Your task to perform on an android device: Go to privacy settings Image 0: 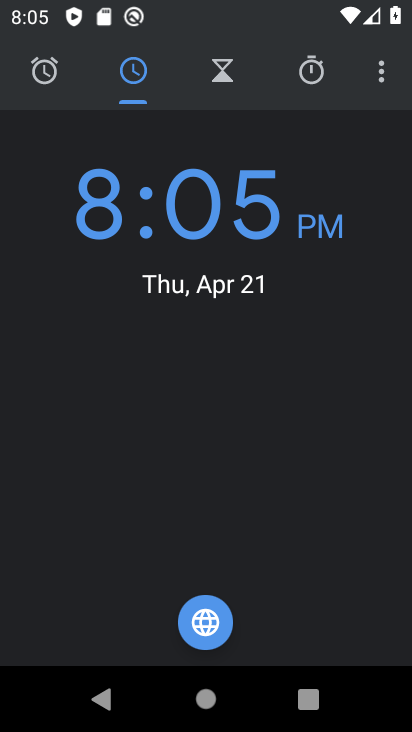
Step 0: press home button
Your task to perform on an android device: Go to privacy settings Image 1: 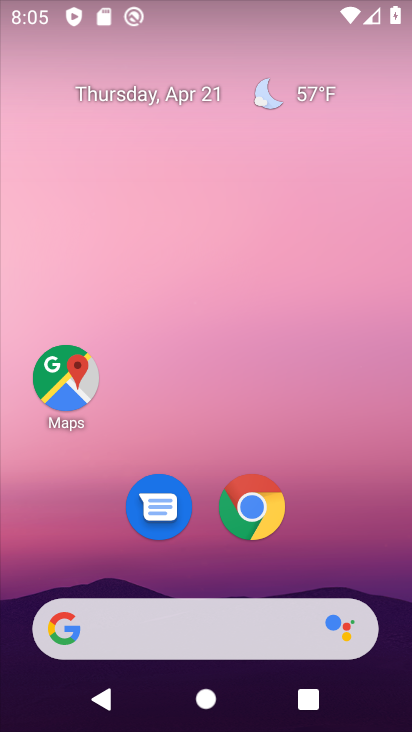
Step 1: click (252, 518)
Your task to perform on an android device: Go to privacy settings Image 2: 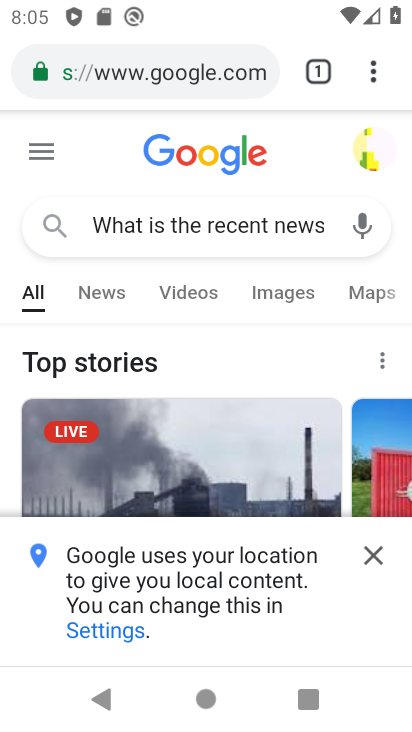
Step 2: drag from (373, 72) to (206, 553)
Your task to perform on an android device: Go to privacy settings Image 3: 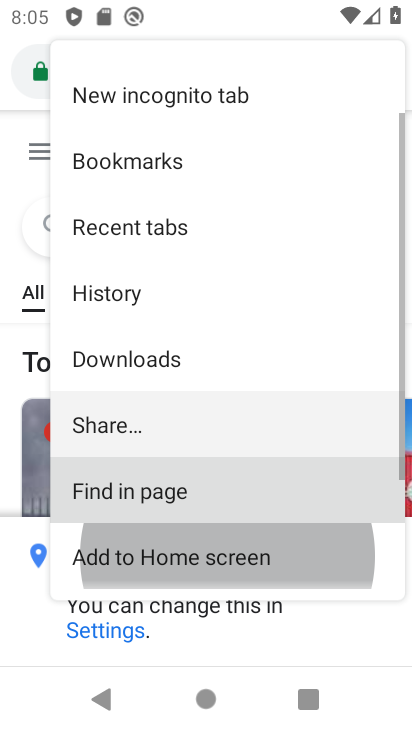
Step 3: drag from (113, 442) to (109, 501)
Your task to perform on an android device: Go to privacy settings Image 4: 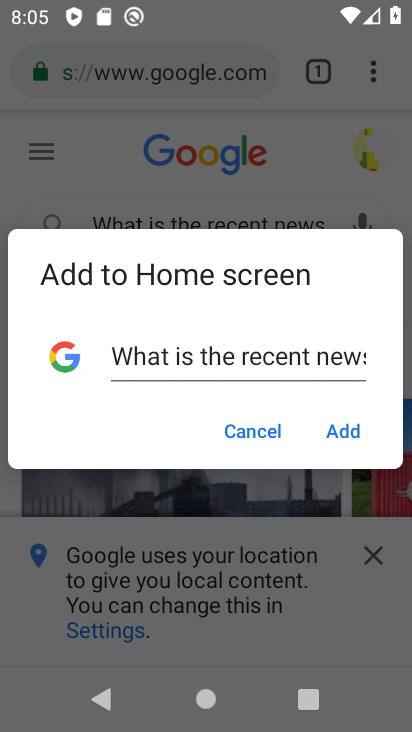
Step 4: click (252, 430)
Your task to perform on an android device: Go to privacy settings Image 5: 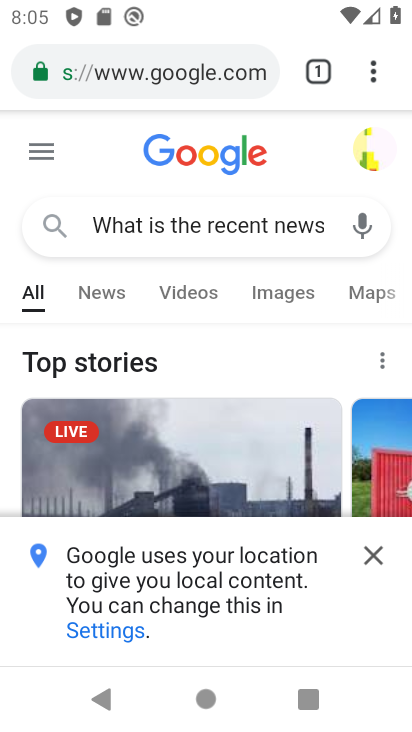
Step 5: drag from (361, 70) to (121, 526)
Your task to perform on an android device: Go to privacy settings Image 6: 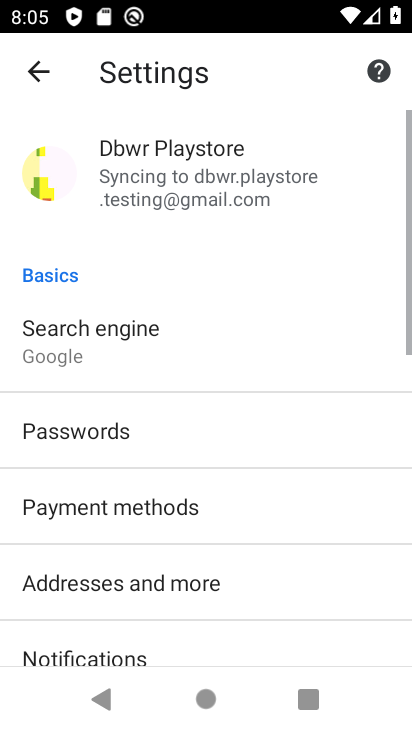
Step 6: drag from (250, 660) to (228, 273)
Your task to perform on an android device: Go to privacy settings Image 7: 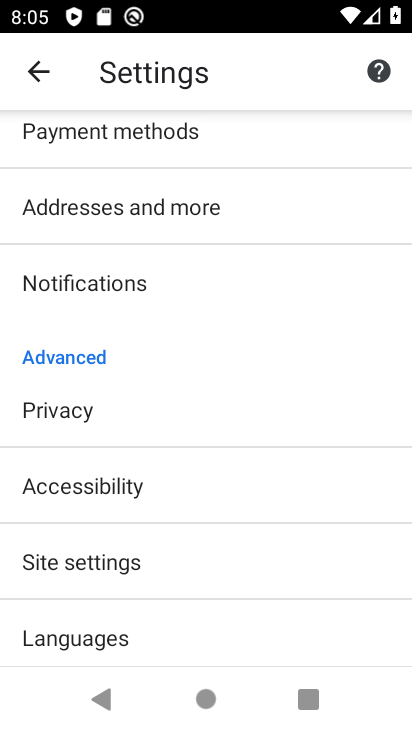
Step 7: click (181, 400)
Your task to perform on an android device: Go to privacy settings Image 8: 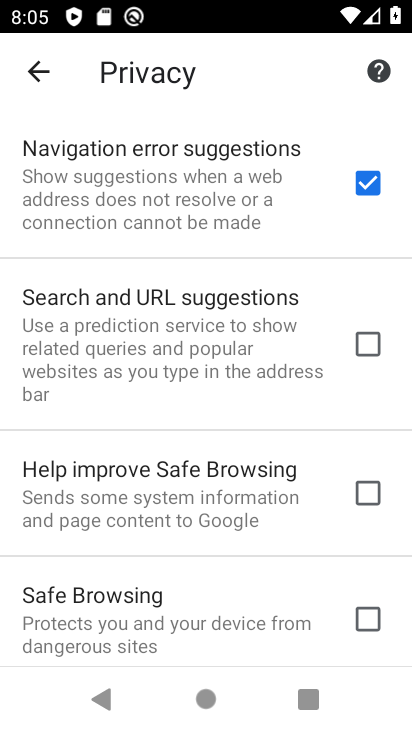
Step 8: task complete